Your task to perform on an android device: open wifi settings Image 0: 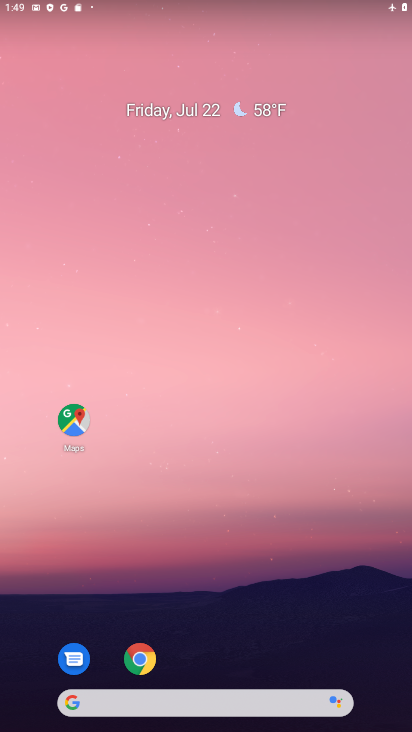
Step 0: press home button
Your task to perform on an android device: open wifi settings Image 1: 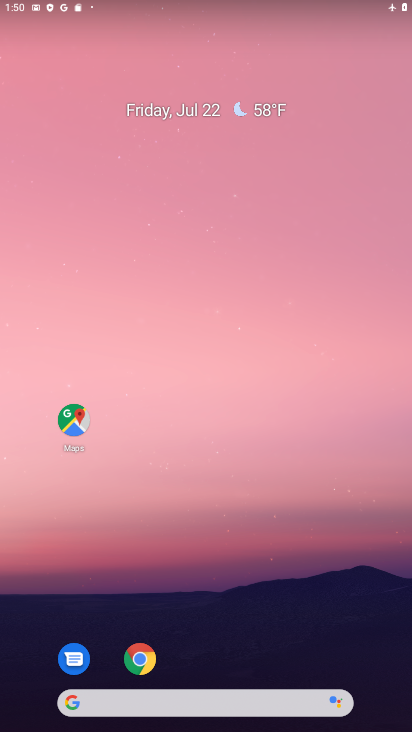
Step 1: click (201, 4)
Your task to perform on an android device: open wifi settings Image 2: 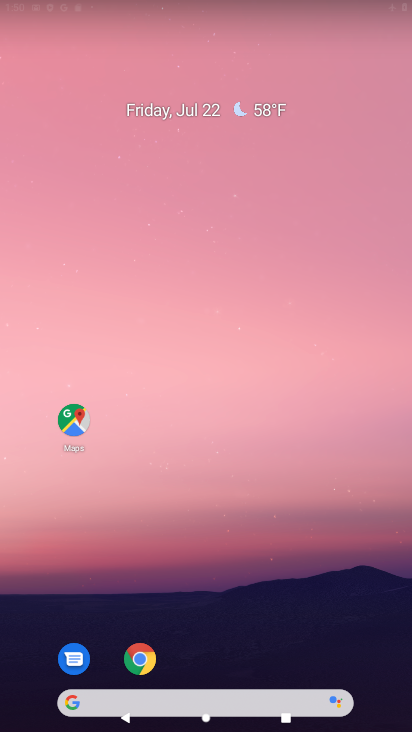
Step 2: drag from (232, 643) to (273, 63)
Your task to perform on an android device: open wifi settings Image 3: 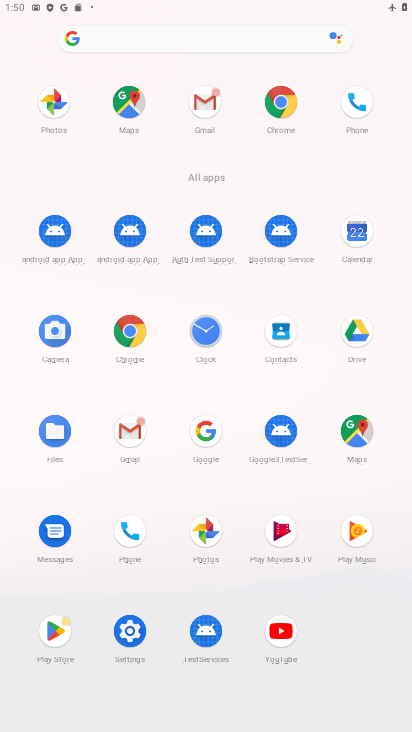
Step 3: click (136, 628)
Your task to perform on an android device: open wifi settings Image 4: 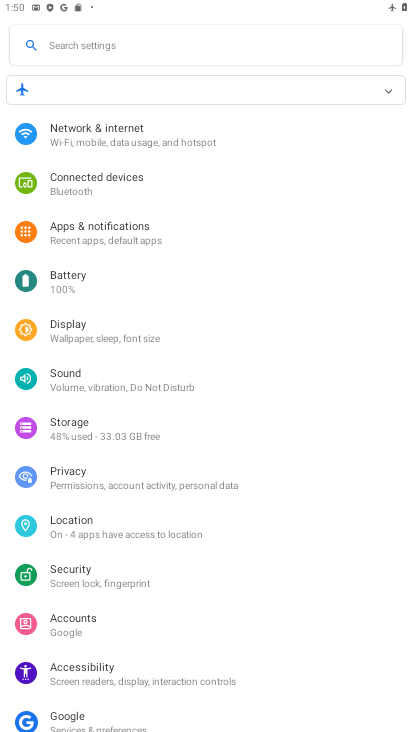
Step 4: click (101, 135)
Your task to perform on an android device: open wifi settings Image 5: 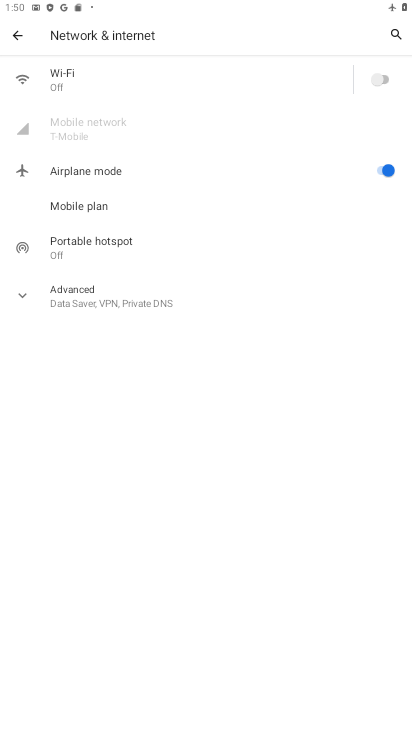
Step 5: click (65, 78)
Your task to perform on an android device: open wifi settings Image 6: 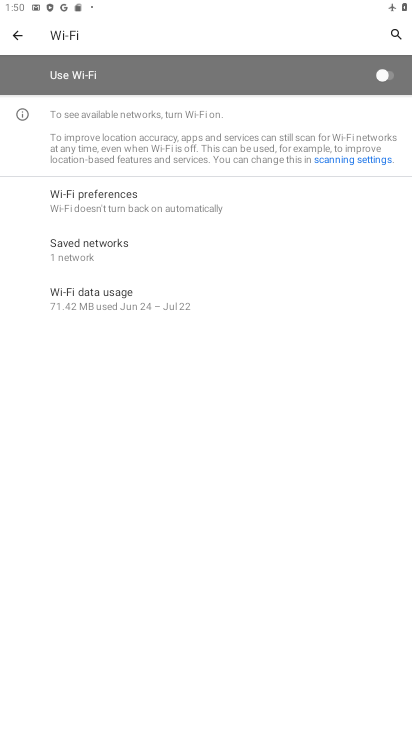
Step 6: click (382, 73)
Your task to perform on an android device: open wifi settings Image 7: 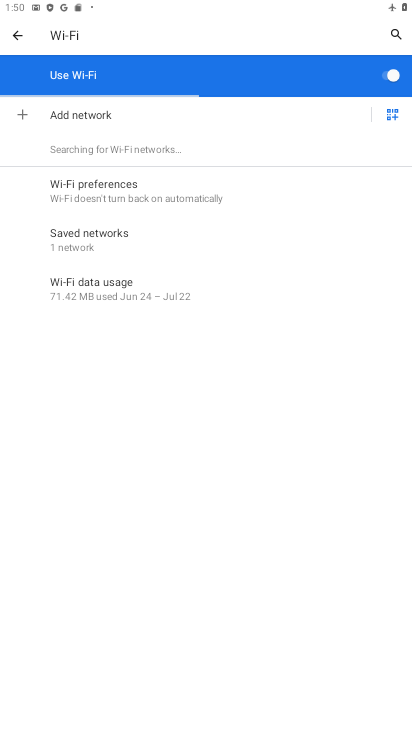
Step 7: task complete